Your task to perform on an android device: Open battery settings Image 0: 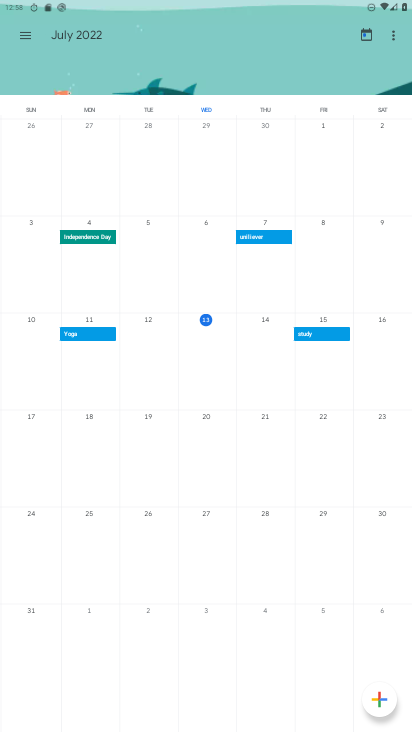
Step 0: press home button
Your task to perform on an android device: Open battery settings Image 1: 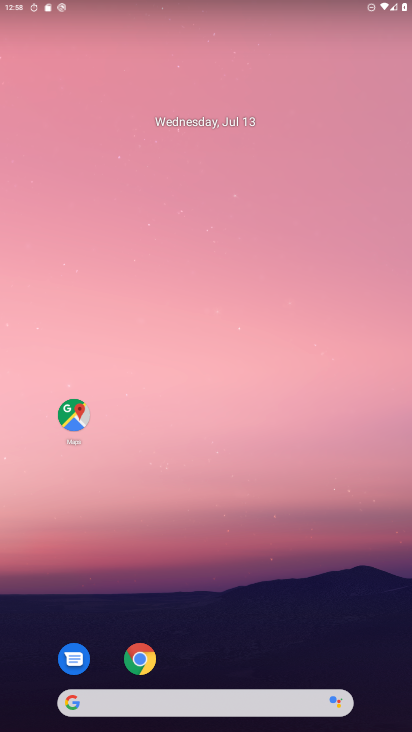
Step 1: drag from (114, 691) to (147, 11)
Your task to perform on an android device: Open battery settings Image 2: 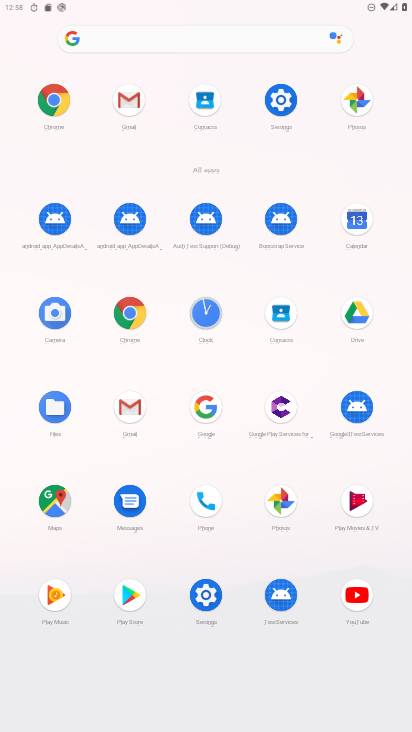
Step 2: click (279, 90)
Your task to perform on an android device: Open battery settings Image 3: 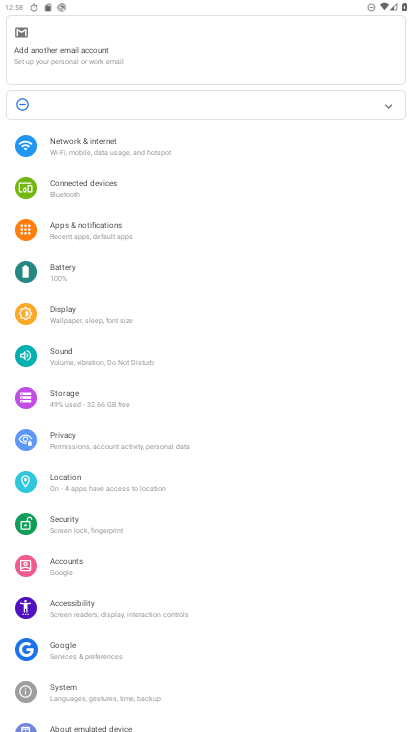
Step 3: click (49, 268)
Your task to perform on an android device: Open battery settings Image 4: 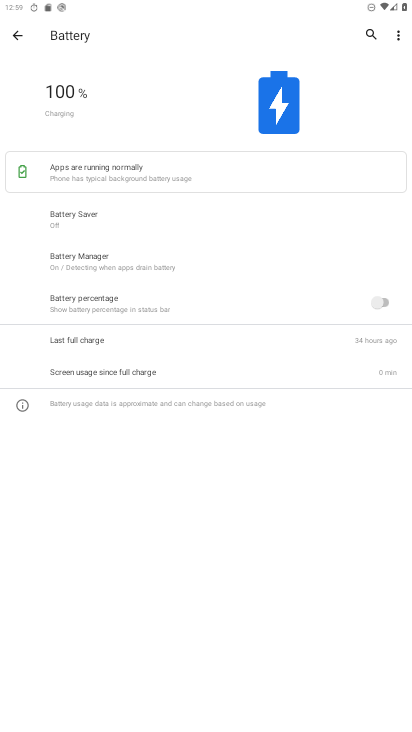
Step 4: task complete